Your task to perform on an android device: visit the assistant section in the google photos Image 0: 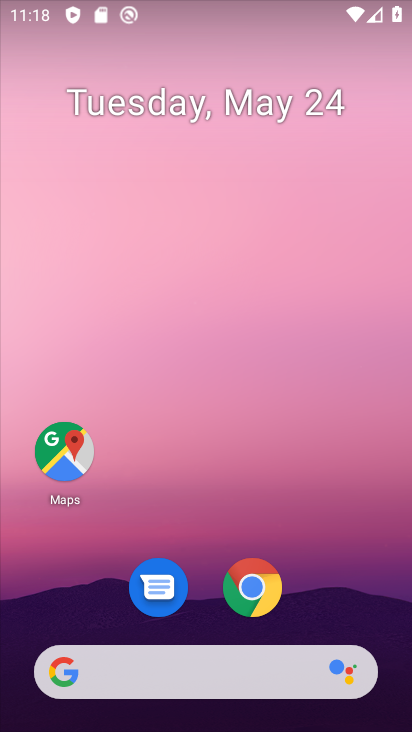
Step 0: drag from (314, 621) to (282, 366)
Your task to perform on an android device: visit the assistant section in the google photos Image 1: 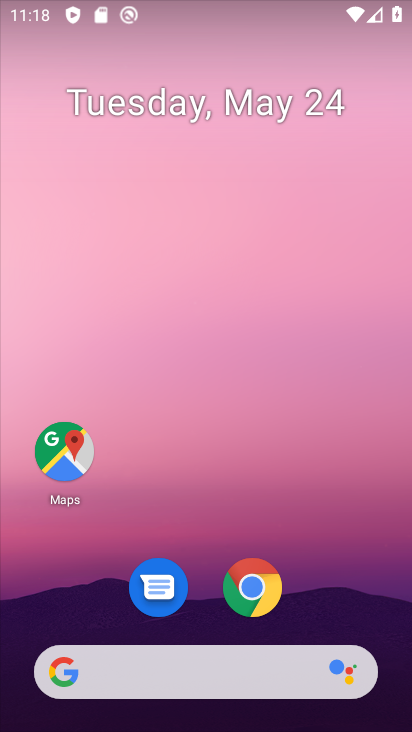
Step 1: drag from (318, 544) to (236, 152)
Your task to perform on an android device: visit the assistant section in the google photos Image 2: 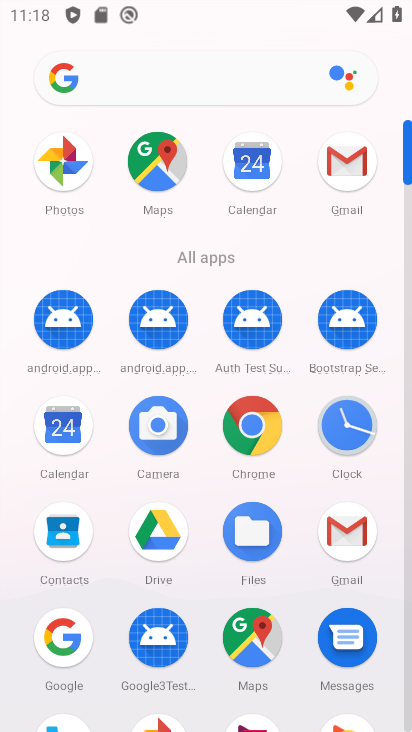
Step 2: click (69, 169)
Your task to perform on an android device: visit the assistant section in the google photos Image 3: 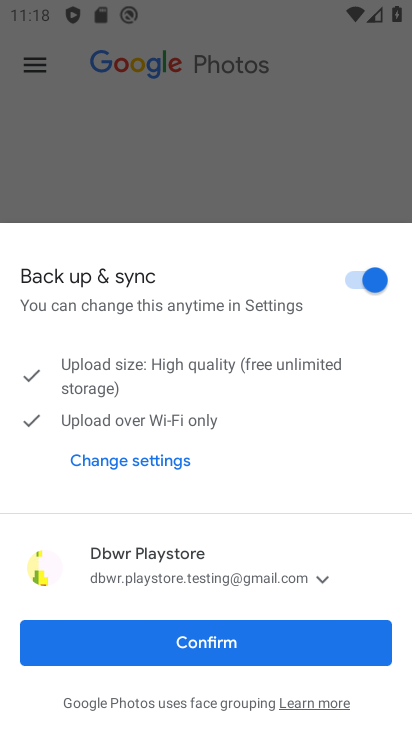
Step 3: click (218, 647)
Your task to perform on an android device: visit the assistant section in the google photos Image 4: 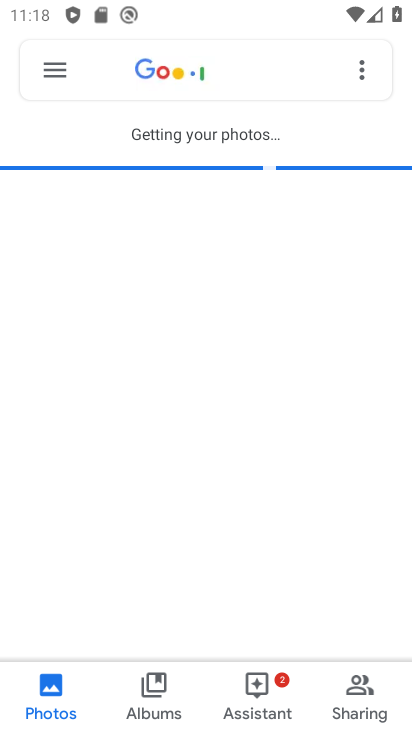
Step 4: click (252, 682)
Your task to perform on an android device: visit the assistant section in the google photos Image 5: 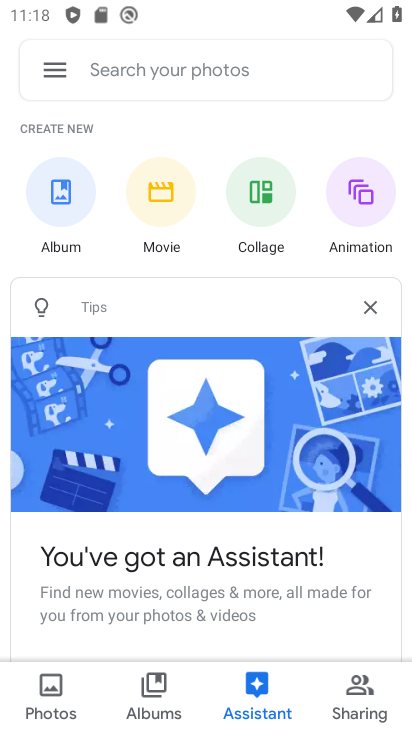
Step 5: task complete